Your task to perform on an android device: turn notification dots off Image 0: 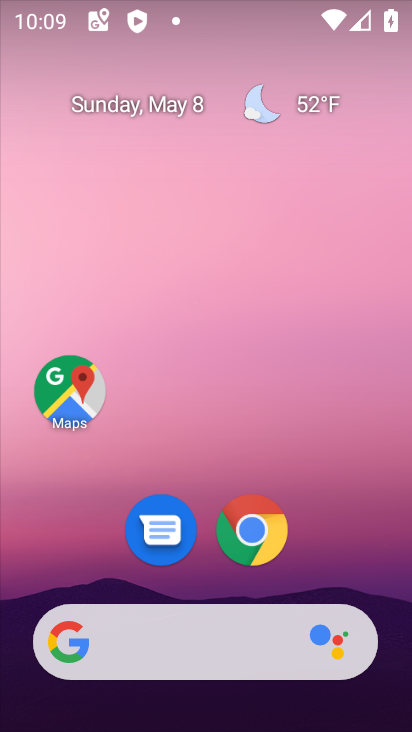
Step 0: drag from (348, 575) to (358, 178)
Your task to perform on an android device: turn notification dots off Image 1: 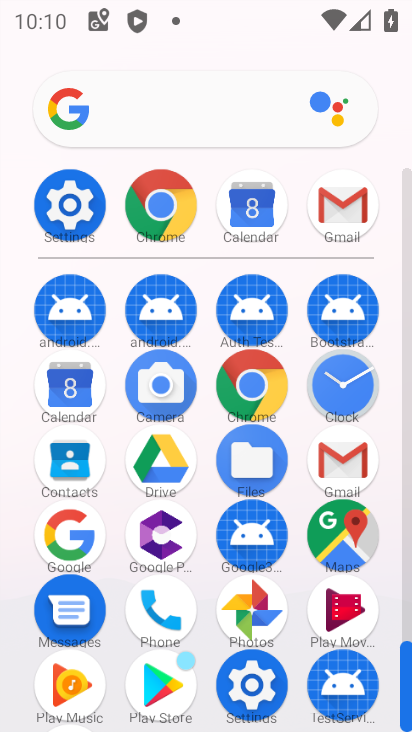
Step 1: click (68, 208)
Your task to perform on an android device: turn notification dots off Image 2: 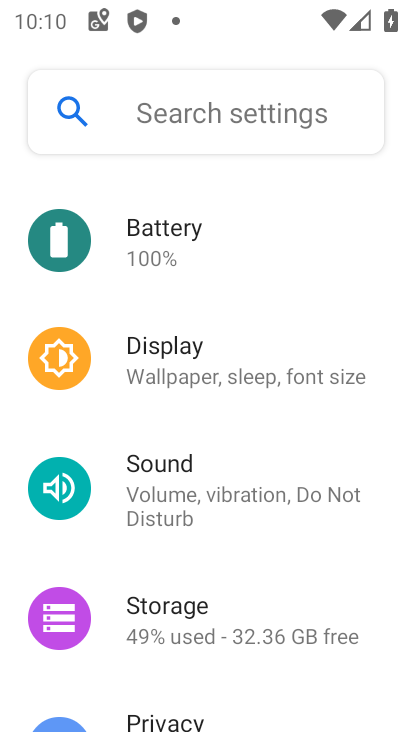
Step 2: drag from (239, 556) to (279, 299)
Your task to perform on an android device: turn notification dots off Image 3: 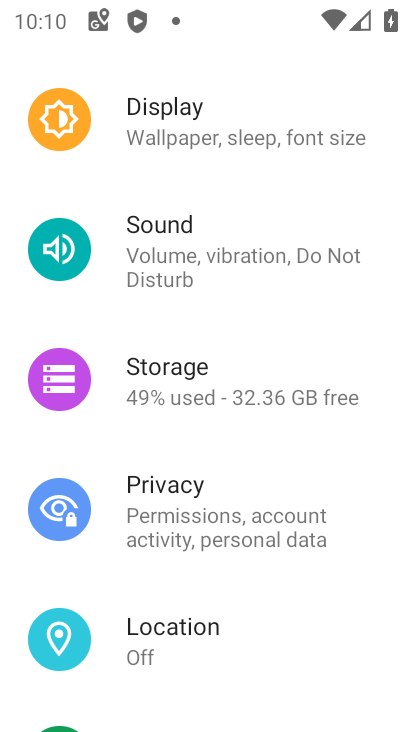
Step 3: drag from (248, 170) to (257, 583)
Your task to perform on an android device: turn notification dots off Image 4: 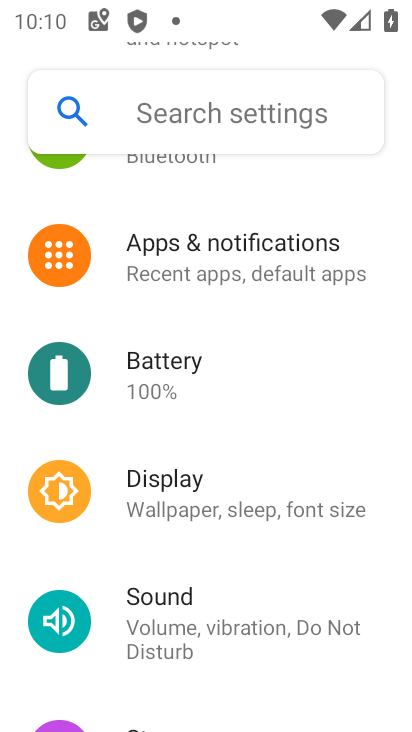
Step 4: click (269, 273)
Your task to perform on an android device: turn notification dots off Image 5: 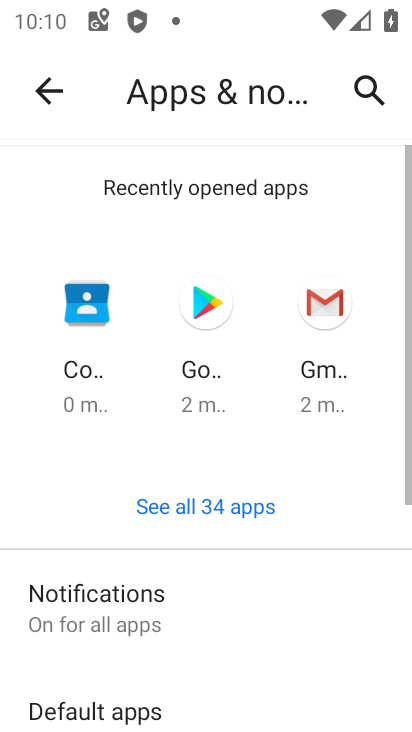
Step 5: drag from (245, 665) to (285, 297)
Your task to perform on an android device: turn notification dots off Image 6: 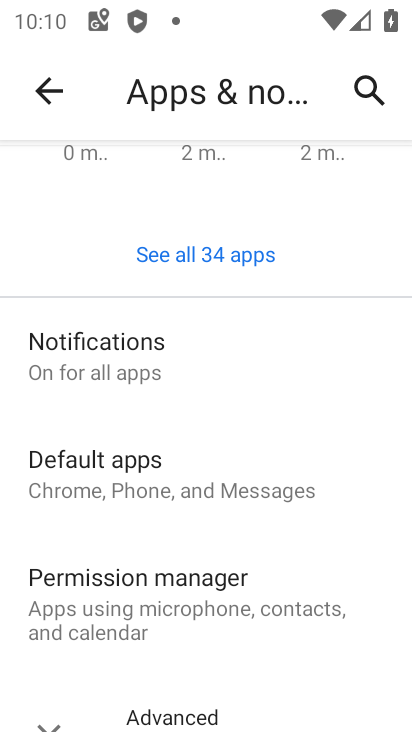
Step 6: click (188, 358)
Your task to perform on an android device: turn notification dots off Image 7: 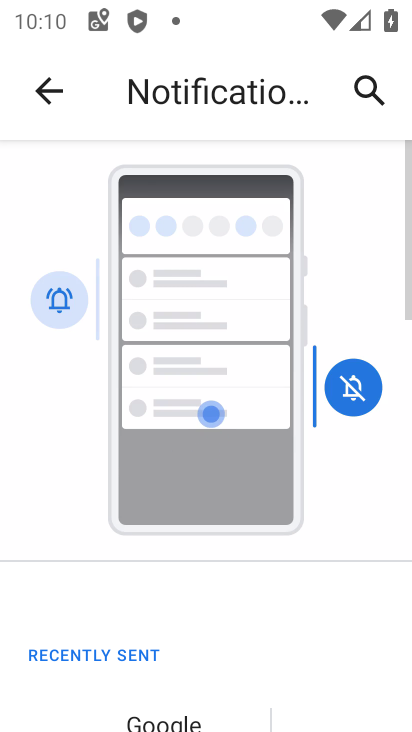
Step 7: drag from (290, 663) to (347, 253)
Your task to perform on an android device: turn notification dots off Image 8: 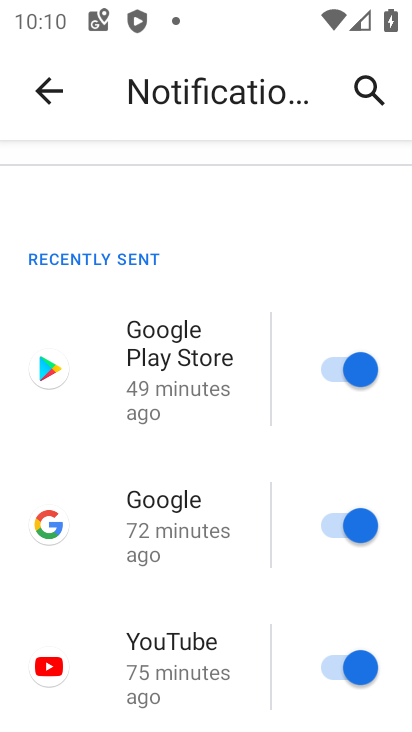
Step 8: drag from (214, 690) to (269, 321)
Your task to perform on an android device: turn notification dots off Image 9: 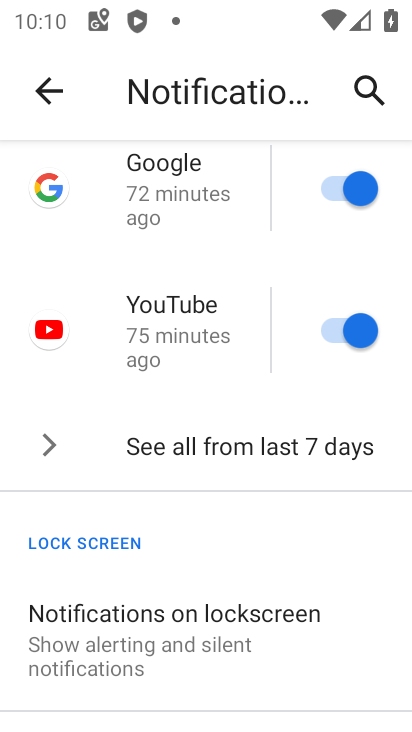
Step 9: drag from (205, 556) to (239, 298)
Your task to perform on an android device: turn notification dots off Image 10: 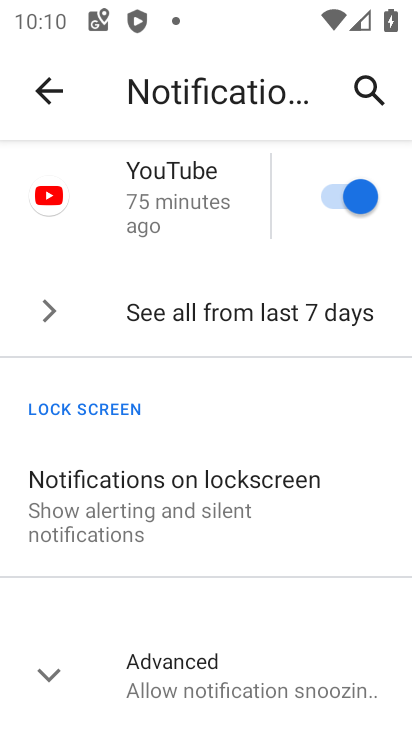
Step 10: click (246, 630)
Your task to perform on an android device: turn notification dots off Image 11: 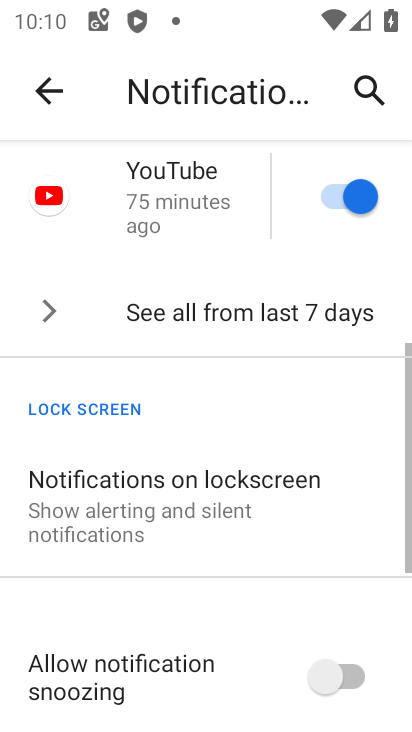
Step 11: drag from (248, 632) to (312, 284)
Your task to perform on an android device: turn notification dots off Image 12: 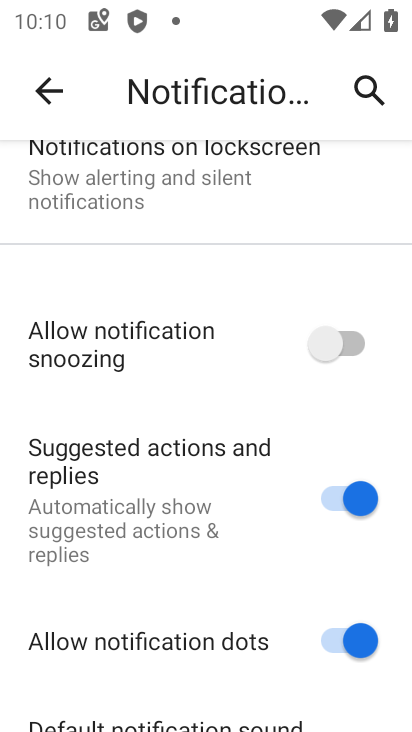
Step 12: drag from (251, 665) to (260, 405)
Your task to perform on an android device: turn notification dots off Image 13: 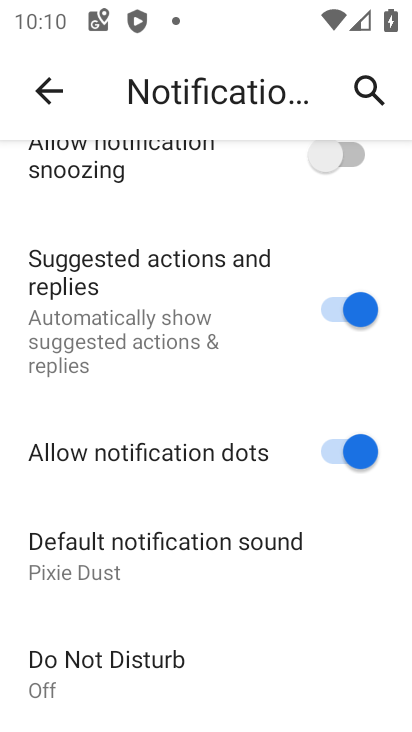
Step 13: click (344, 468)
Your task to perform on an android device: turn notification dots off Image 14: 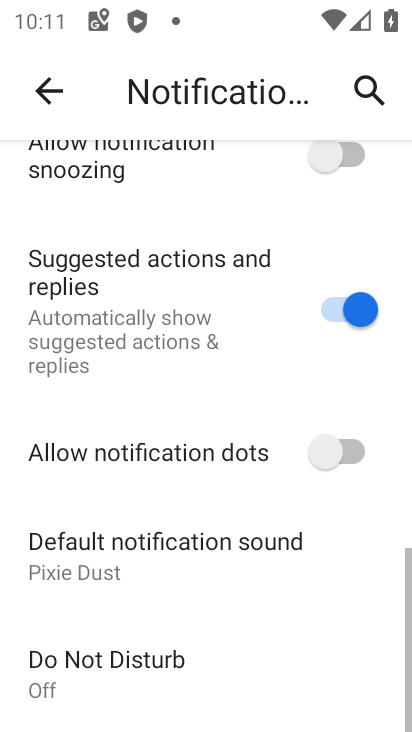
Step 14: task complete